Your task to perform on an android device: delete the emails in spam in the gmail app Image 0: 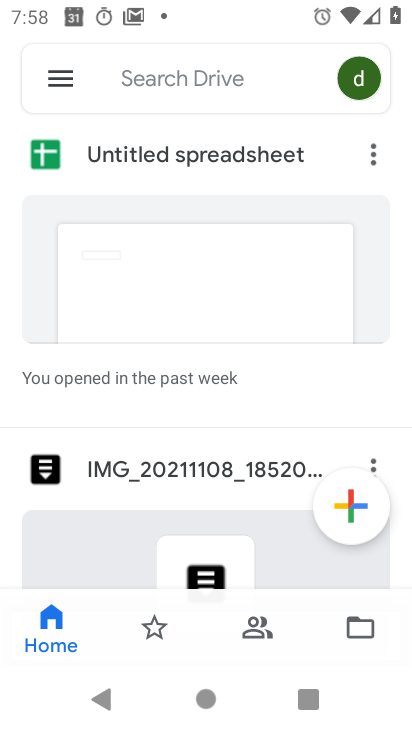
Step 0: press home button
Your task to perform on an android device: delete the emails in spam in the gmail app Image 1: 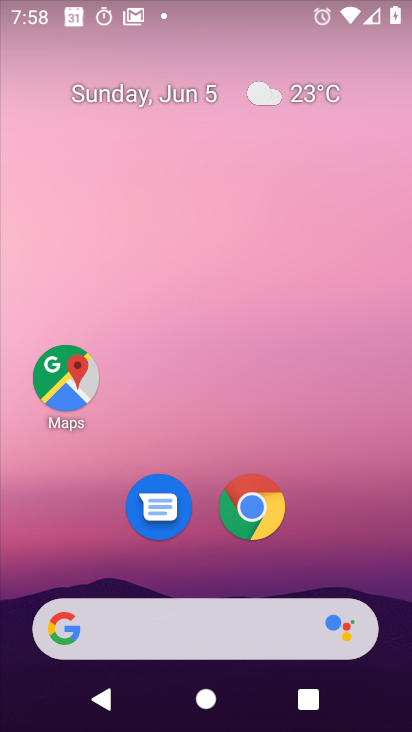
Step 1: drag from (286, 640) to (226, 70)
Your task to perform on an android device: delete the emails in spam in the gmail app Image 2: 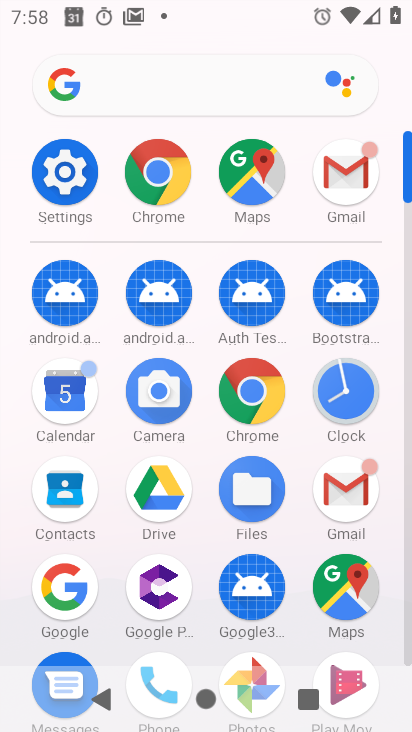
Step 2: click (362, 492)
Your task to perform on an android device: delete the emails in spam in the gmail app Image 3: 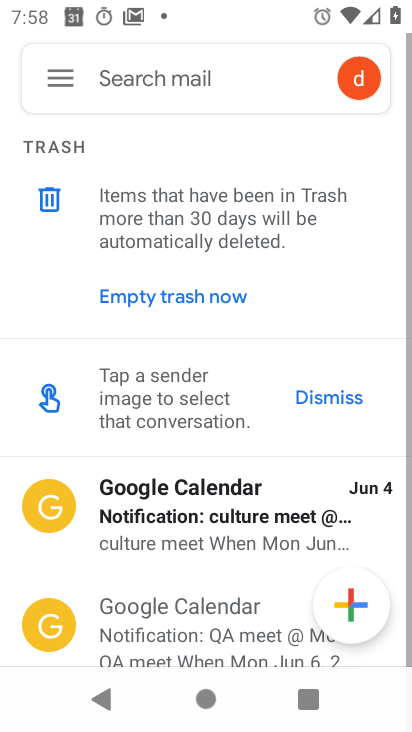
Step 3: click (52, 76)
Your task to perform on an android device: delete the emails in spam in the gmail app Image 4: 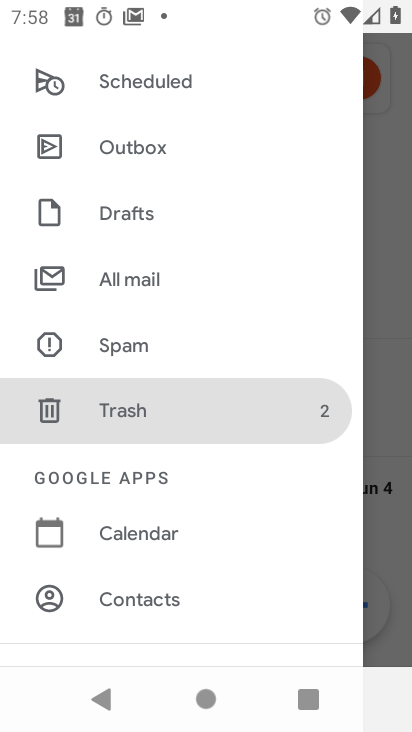
Step 4: click (138, 337)
Your task to perform on an android device: delete the emails in spam in the gmail app Image 5: 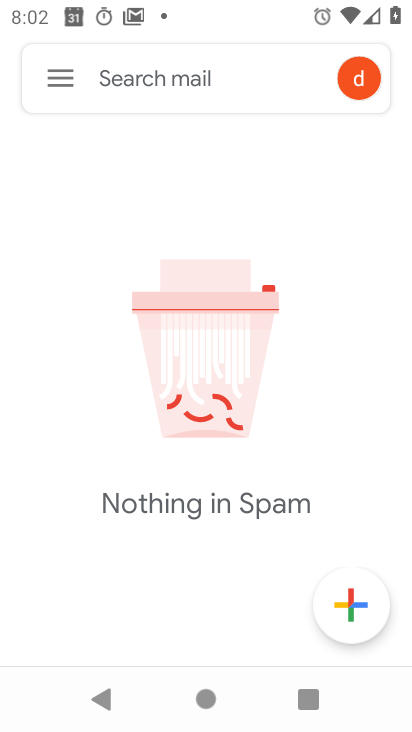
Step 5: task complete